Your task to perform on an android device: Open Yahoo.com Image 0: 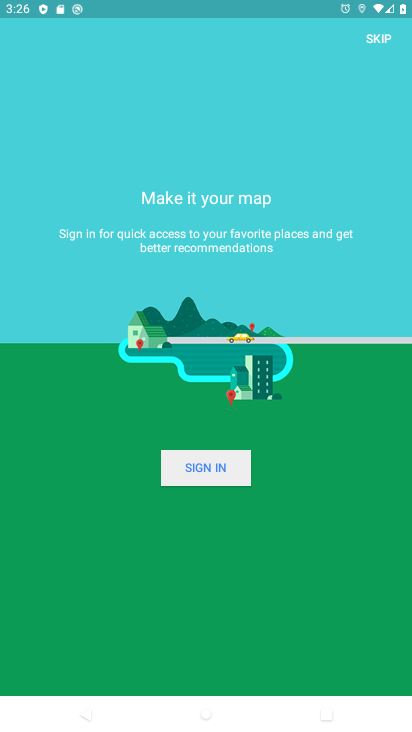
Step 0: press home button
Your task to perform on an android device: Open Yahoo.com Image 1: 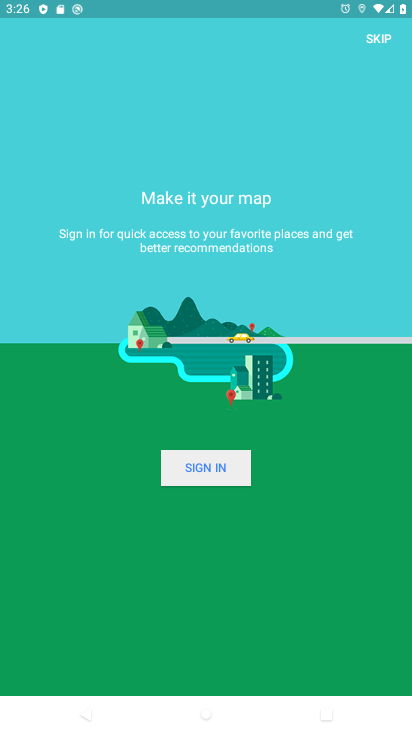
Step 1: press home button
Your task to perform on an android device: Open Yahoo.com Image 2: 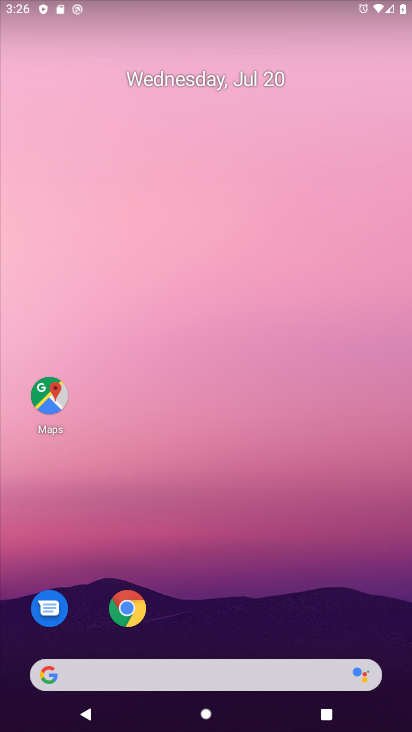
Step 2: drag from (191, 618) to (271, 171)
Your task to perform on an android device: Open Yahoo.com Image 3: 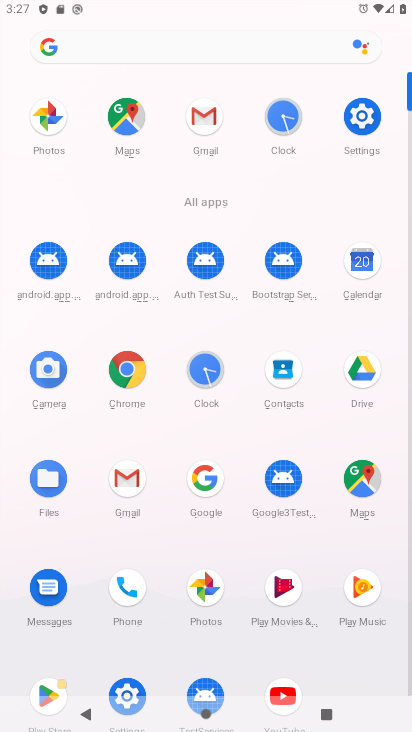
Step 3: click (123, 51)
Your task to perform on an android device: Open Yahoo.com Image 4: 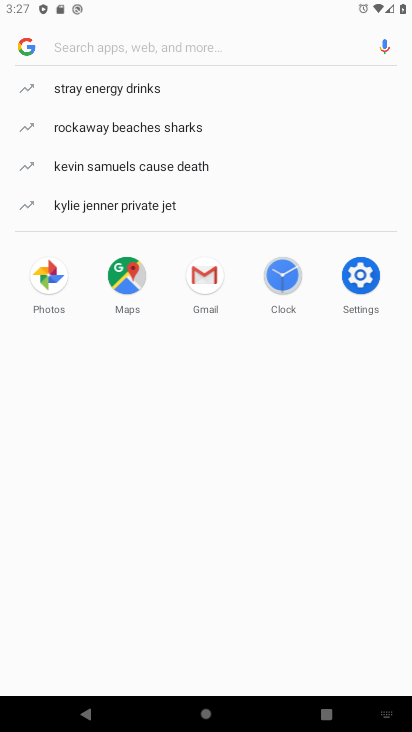
Step 4: click (87, 37)
Your task to perform on an android device: Open Yahoo.com Image 5: 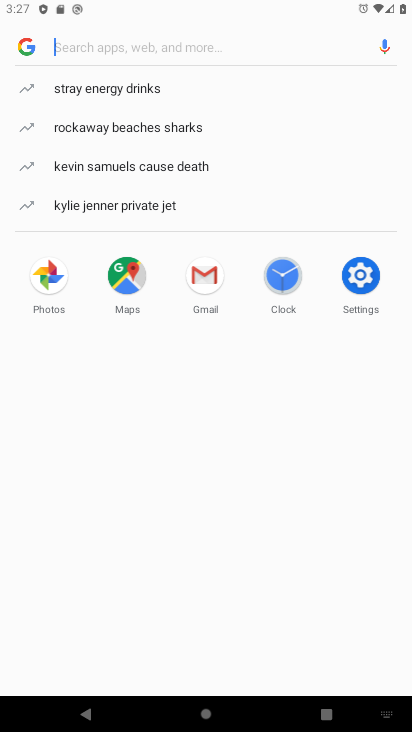
Step 5: type "Yahoo.com"
Your task to perform on an android device: Open Yahoo.com Image 6: 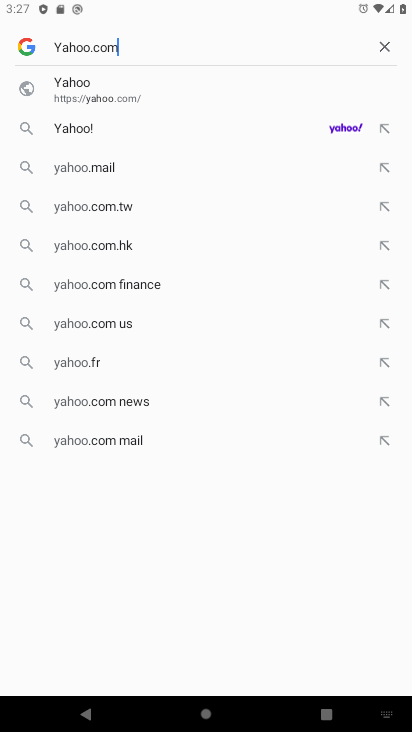
Step 6: type ""
Your task to perform on an android device: Open Yahoo.com Image 7: 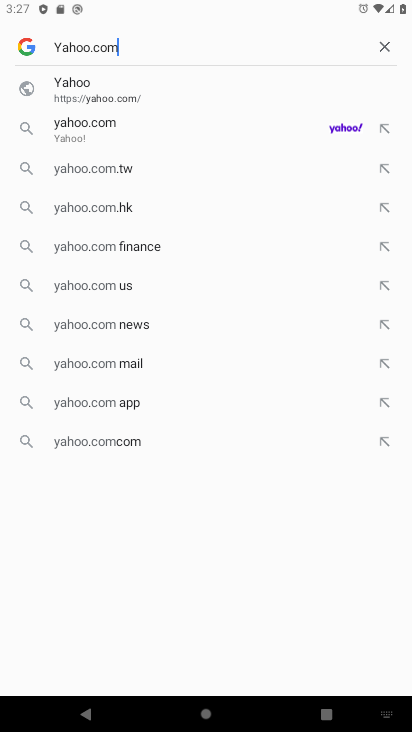
Step 7: click (81, 88)
Your task to perform on an android device: Open Yahoo.com Image 8: 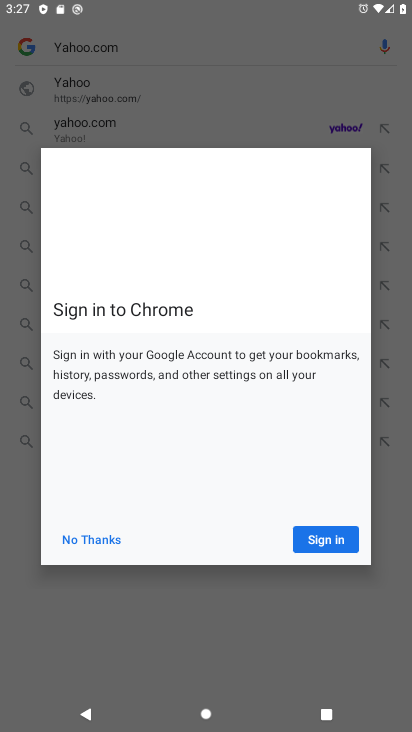
Step 8: click (143, 98)
Your task to perform on an android device: Open Yahoo.com Image 9: 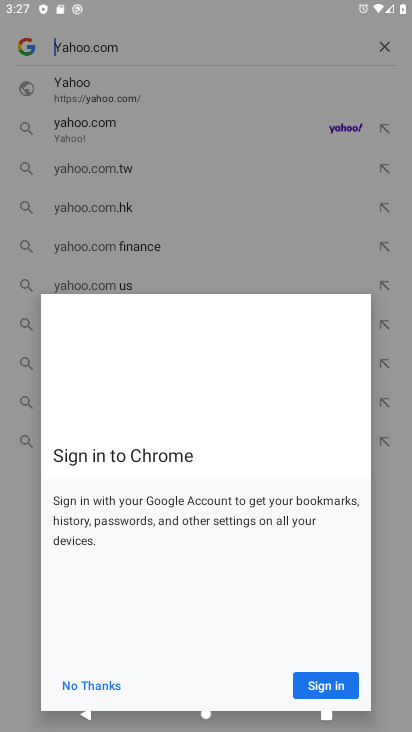
Step 9: click (138, 116)
Your task to perform on an android device: Open Yahoo.com Image 10: 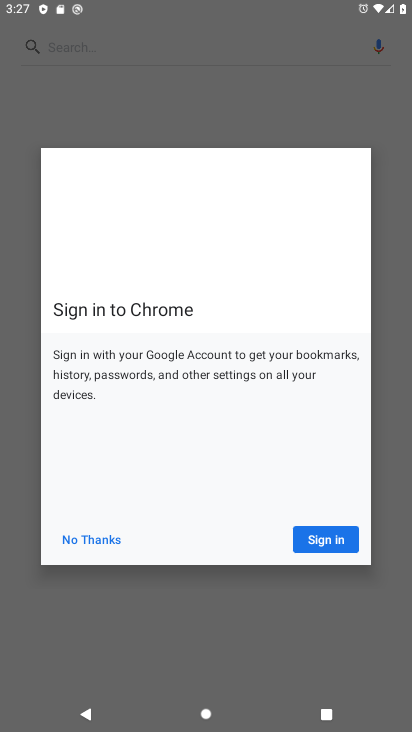
Step 10: click (74, 540)
Your task to perform on an android device: Open Yahoo.com Image 11: 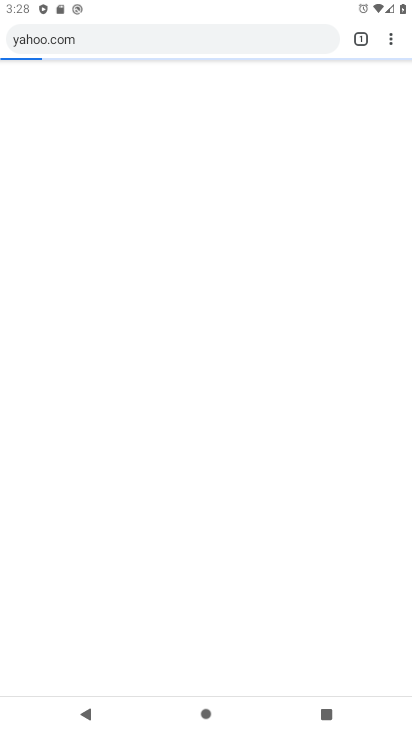
Step 11: task complete